Your task to perform on an android device: When is my next meeting? Image 0: 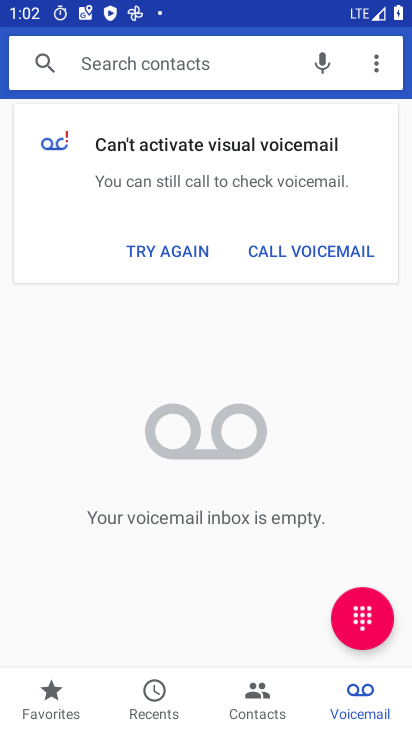
Step 0: press home button
Your task to perform on an android device: When is my next meeting? Image 1: 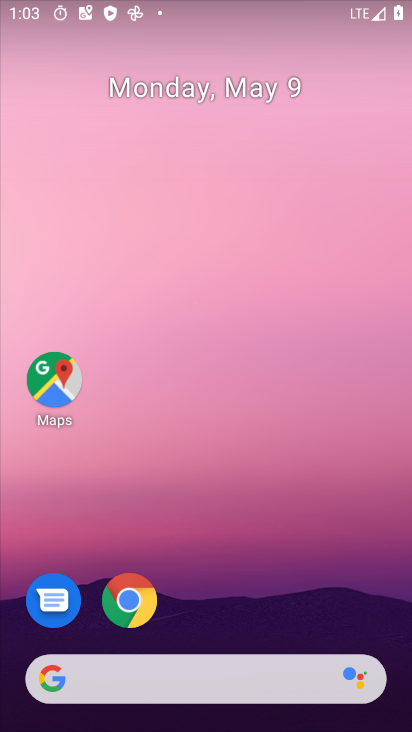
Step 1: task complete